Your task to perform on an android device: turn on priority inbox in the gmail app Image 0: 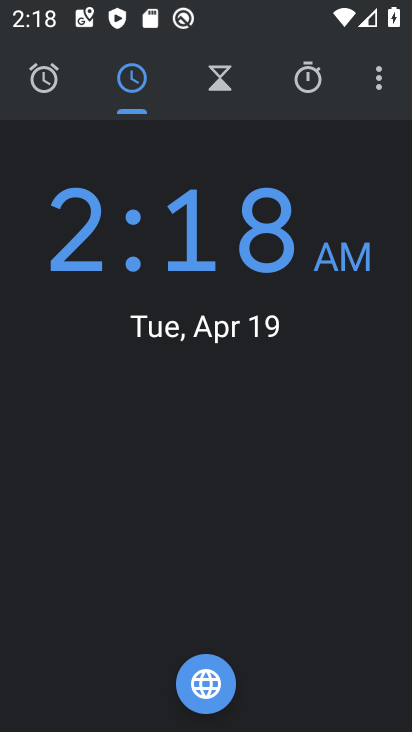
Step 0: press back button
Your task to perform on an android device: turn on priority inbox in the gmail app Image 1: 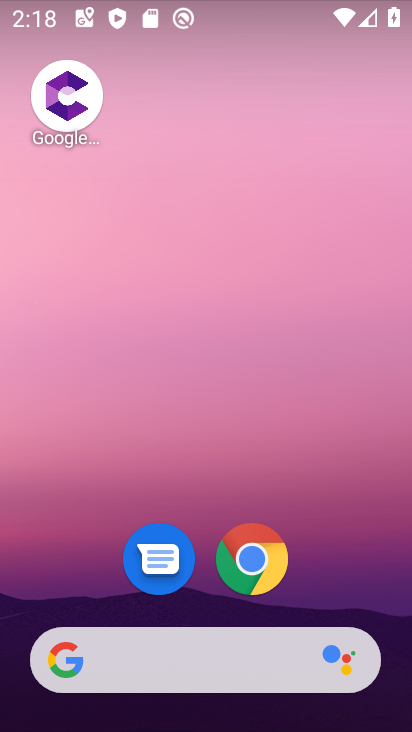
Step 1: drag from (105, 555) to (248, 92)
Your task to perform on an android device: turn on priority inbox in the gmail app Image 2: 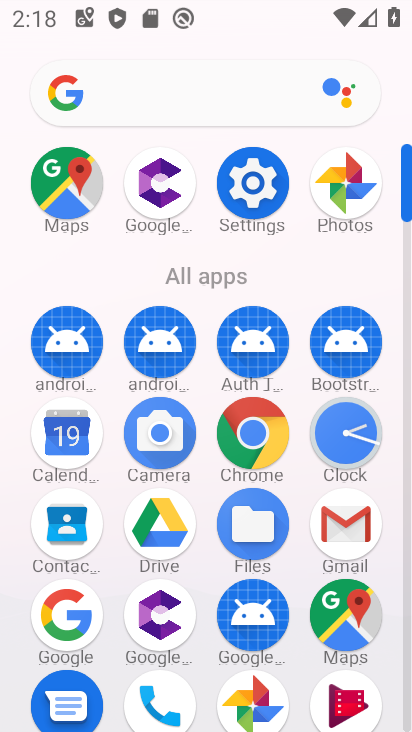
Step 2: click (346, 517)
Your task to perform on an android device: turn on priority inbox in the gmail app Image 3: 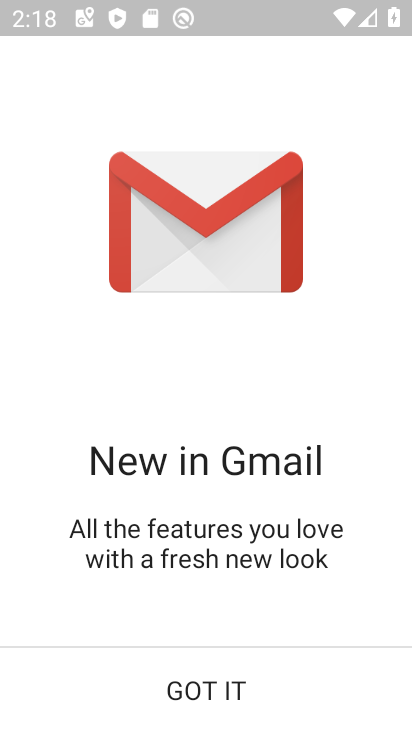
Step 3: click (239, 671)
Your task to perform on an android device: turn on priority inbox in the gmail app Image 4: 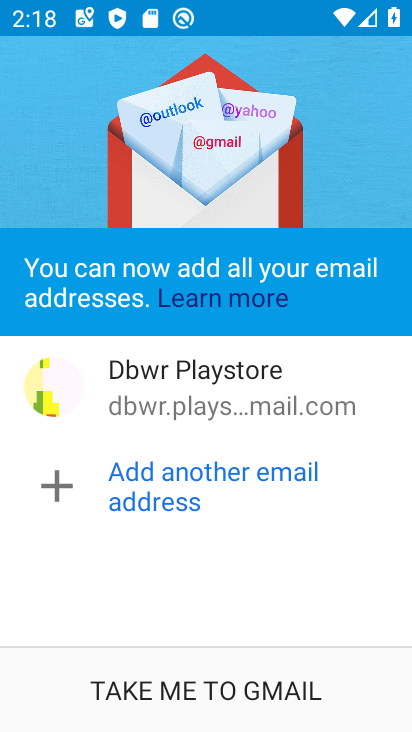
Step 4: click (242, 702)
Your task to perform on an android device: turn on priority inbox in the gmail app Image 5: 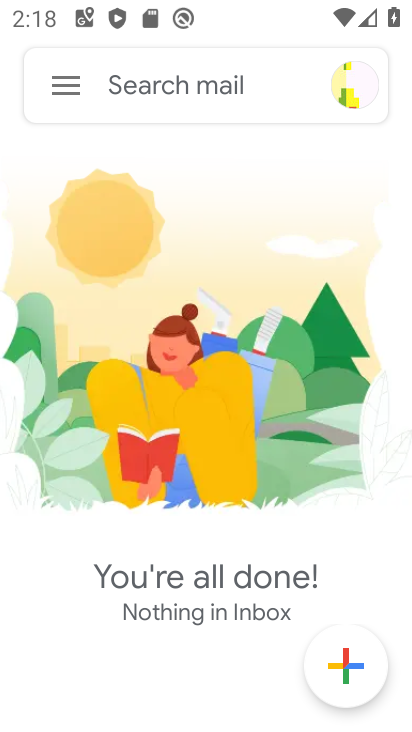
Step 5: click (63, 79)
Your task to perform on an android device: turn on priority inbox in the gmail app Image 6: 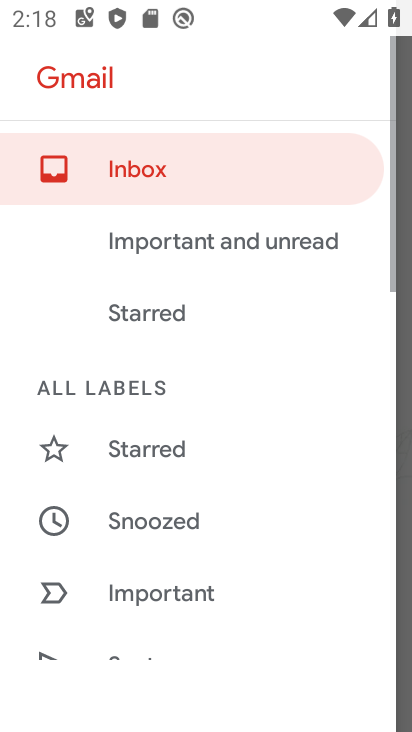
Step 6: drag from (121, 569) to (311, 151)
Your task to perform on an android device: turn on priority inbox in the gmail app Image 7: 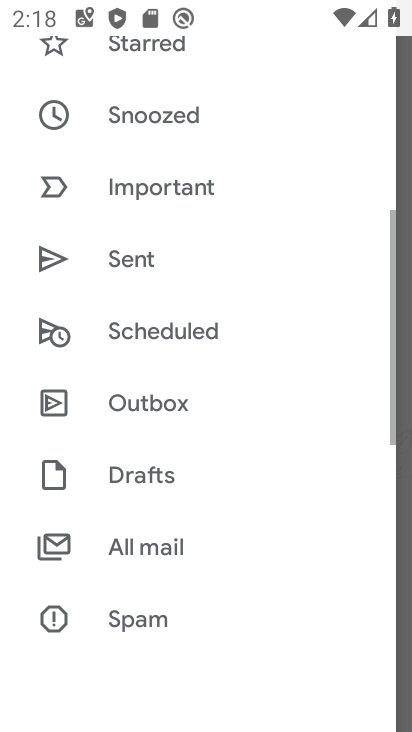
Step 7: drag from (167, 536) to (313, 145)
Your task to perform on an android device: turn on priority inbox in the gmail app Image 8: 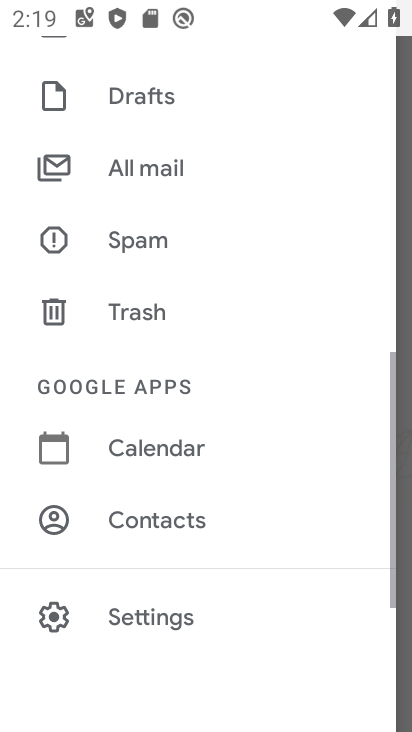
Step 8: drag from (154, 611) to (247, 331)
Your task to perform on an android device: turn on priority inbox in the gmail app Image 9: 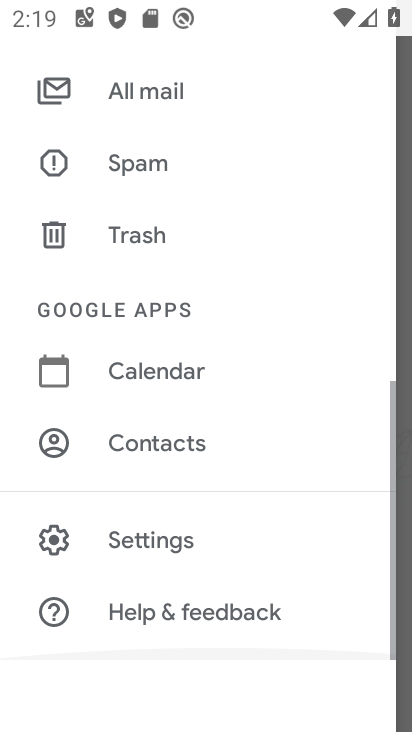
Step 9: click (175, 539)
Your task to perform on an android device: turn on priority inbox in the gmail app Image 10: 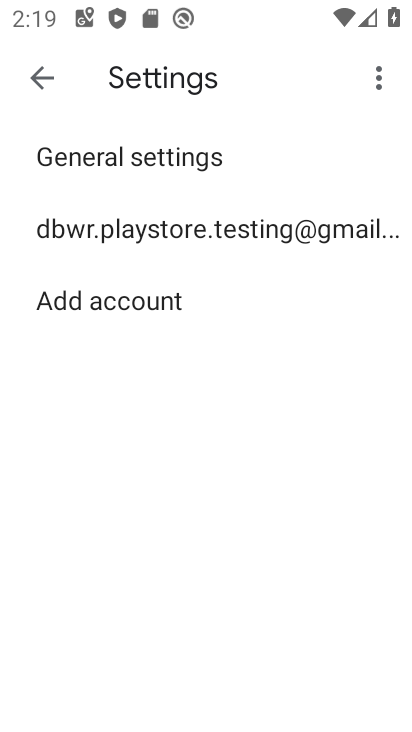
Step 10: click (223, 234)
Your task to perform on an android device: turn on priority inbox in the gmail app Image 11: 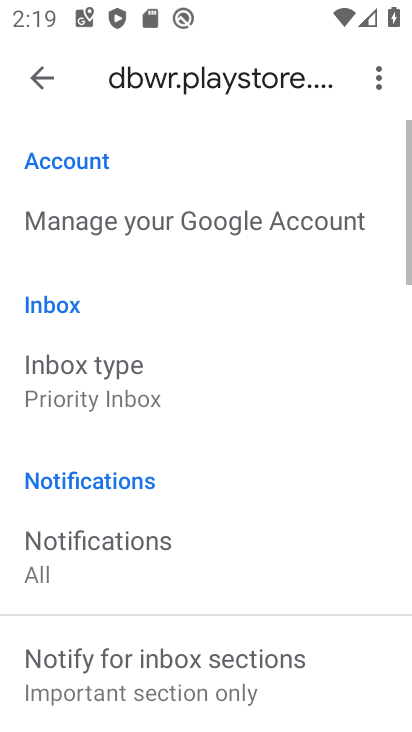
Step 11: task complete